Your task to perform on an android device: create a new album in the google photos Image 0: 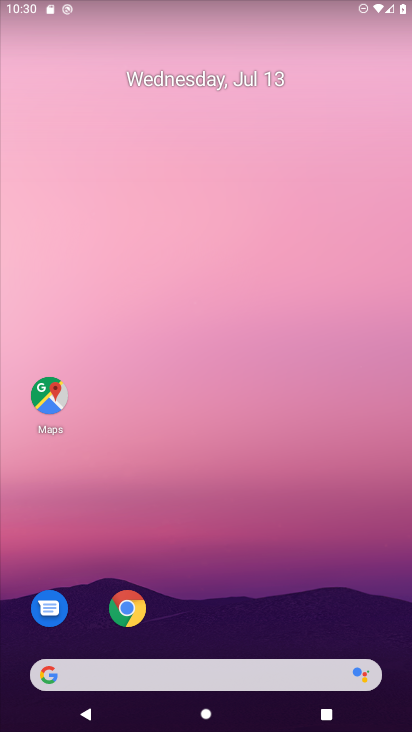
Step 0: drag from (205, 673) to (221, 75)
Your task to perform on an android device: create a new album in the google photos Image 1: 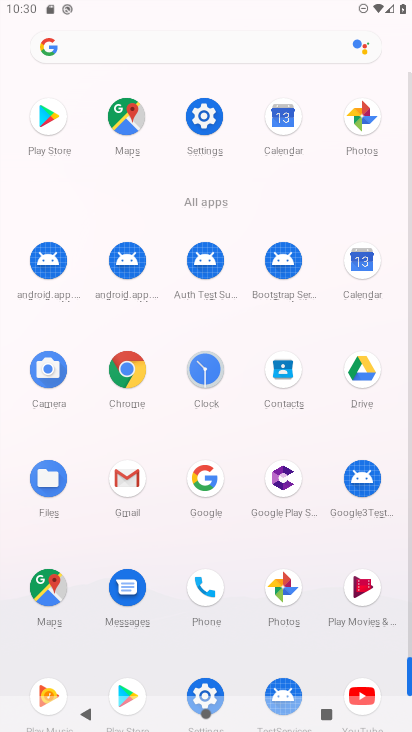
Step 1: click (362, 117)
Your task to perform on an android device: create a new album in the google photos Image 2: 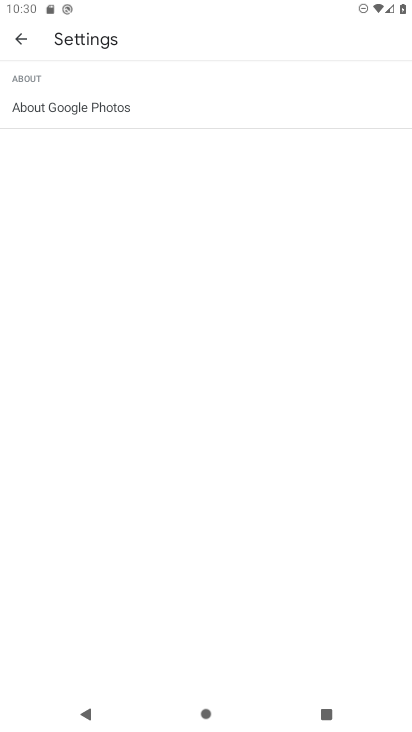
Step 2: press back button
Your task to perform on an android device: create a new album in the google photos Image 3: 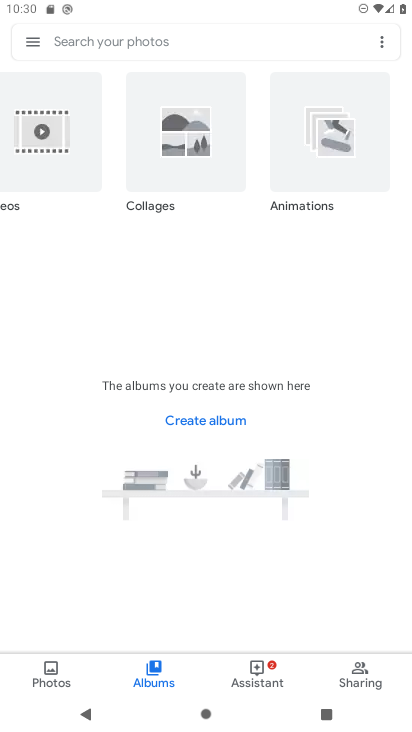
Step 3: click (382, 40)
Your task to perform on an android device: create a new album in the google photos Image 4: 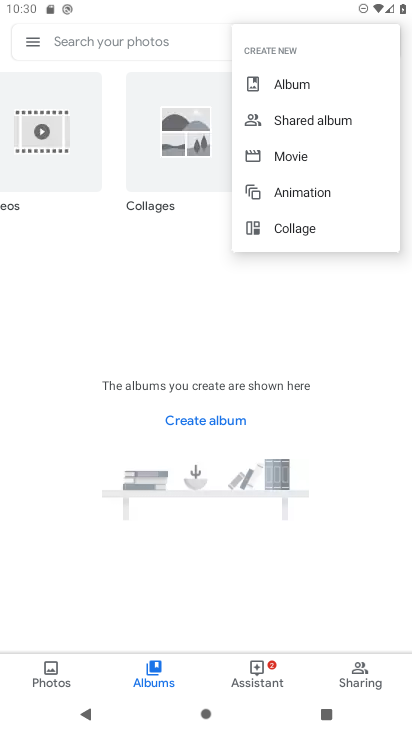
Step 4: click (305, 80)
Your task to perform on an android device: create a new album in the google photos Image 5: 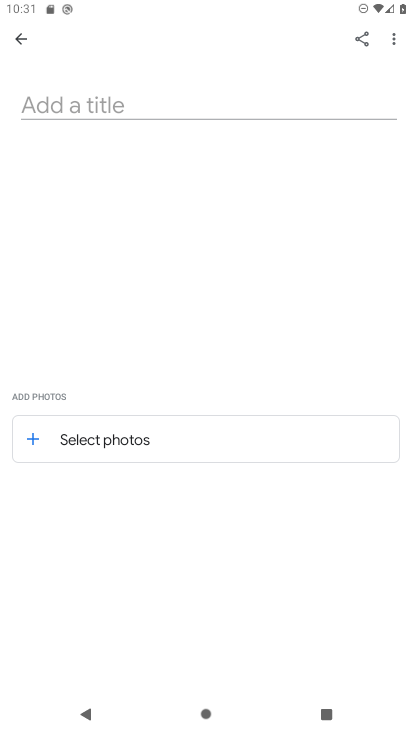
Step 5: click (236, 108)
Your task to perform on an android device: create a new album in the google photos Image 6: 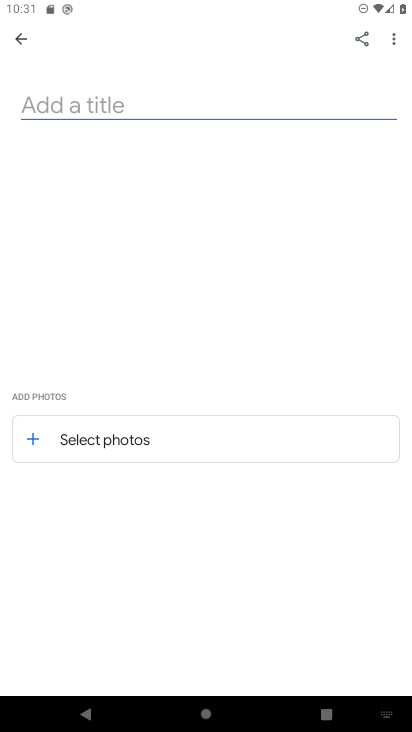
Step 6: type "New Add"
Your task to perform on an android device: create a new album in the google photos Image 7: 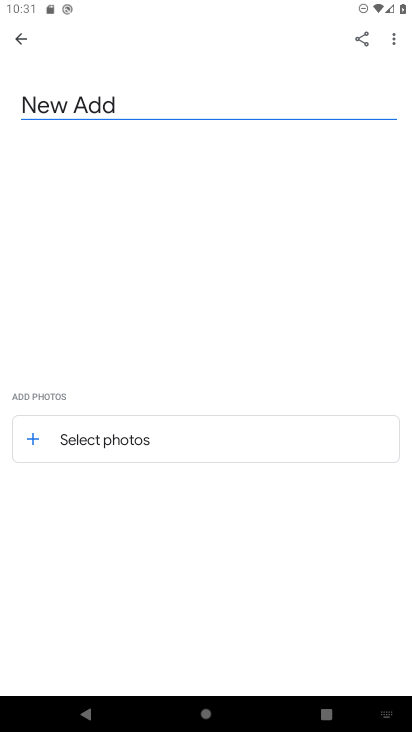
Step 7: click (29, 435)
Your task to perform on an android device: create a new album in the google photos Image 8: 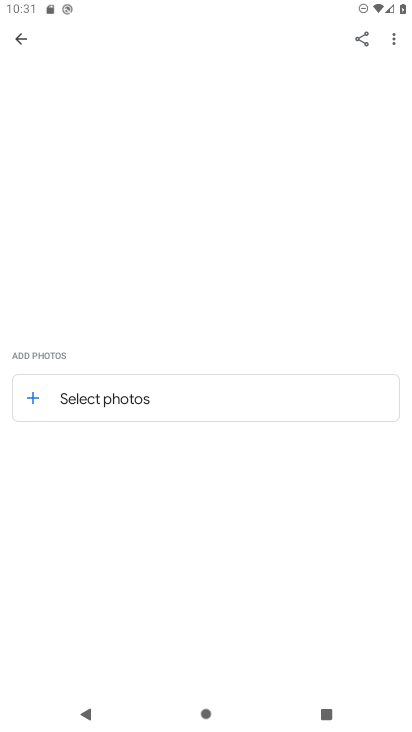
Step 8: click (36, 399)
Your task to perform on an android device: create a new album in the google photos Image 9: 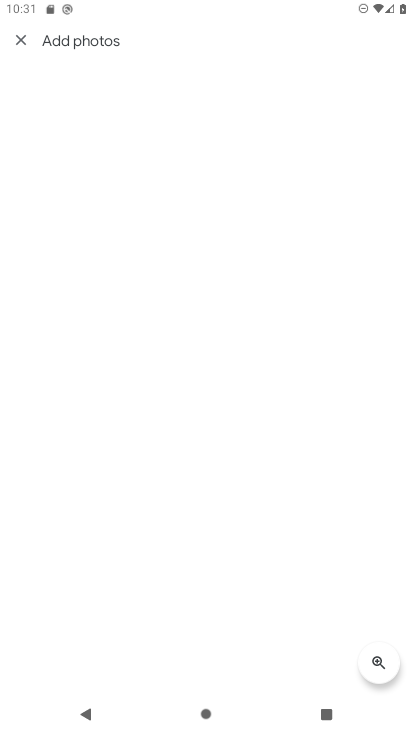
Step 9: click (19, 38)
Your task to perform on an android device: create a new album in the google photos Image 10: 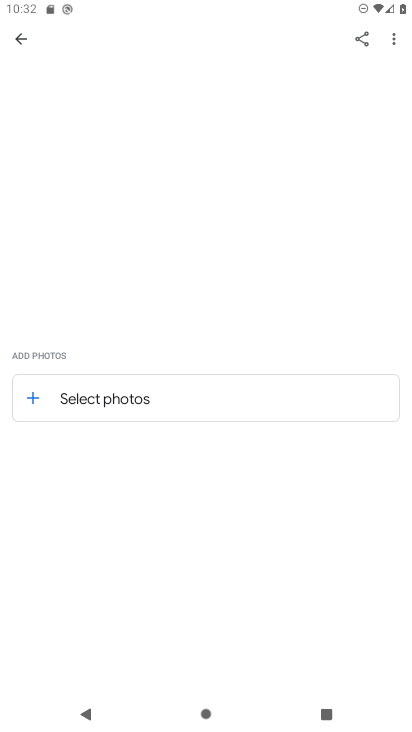
Step 10: click (122, 399)
Your task to perform on an android device: create a new album in the google photos Image 11: 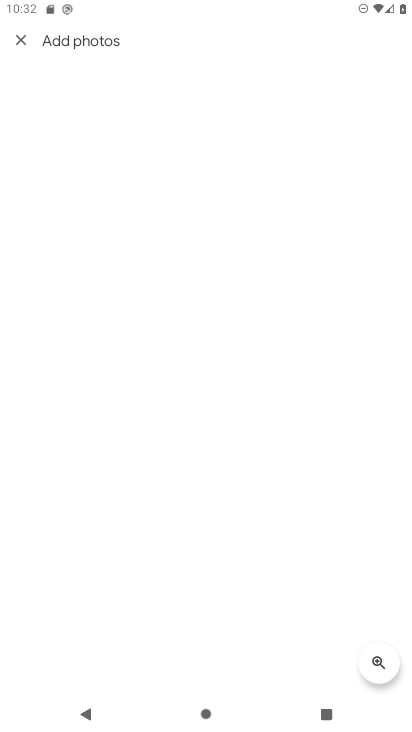
Step 11: task complete